Your task to perform on an android device: see tabs open on other devices in the chrome app Image 0: 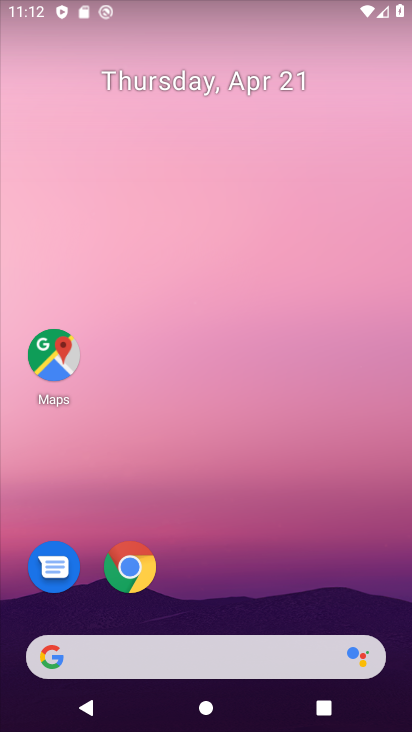
Step 0: drag from (386, 603) to (375, 166)
Your task to perform on an android device: see tabs open on other devices in the chrome app Image 1: 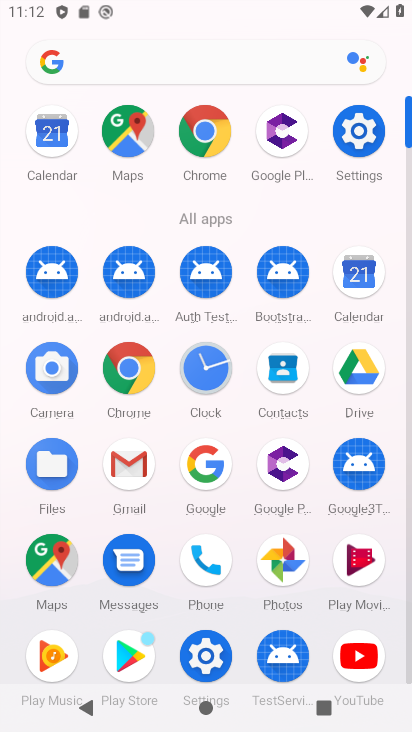
Step 1: click (141, 382)
Your task to perform on an android device: see tabs open on other devices in the chrome app Image 2: 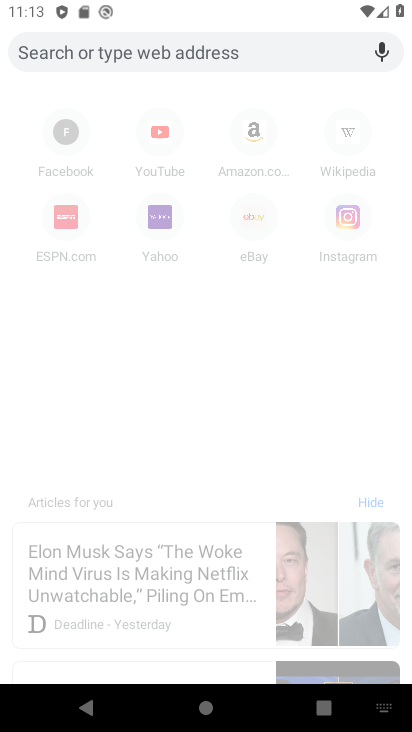
Step 2: click (148, 411)
Your task to perform on an android device: see tabs open on other devices in the chrome app Image 3: 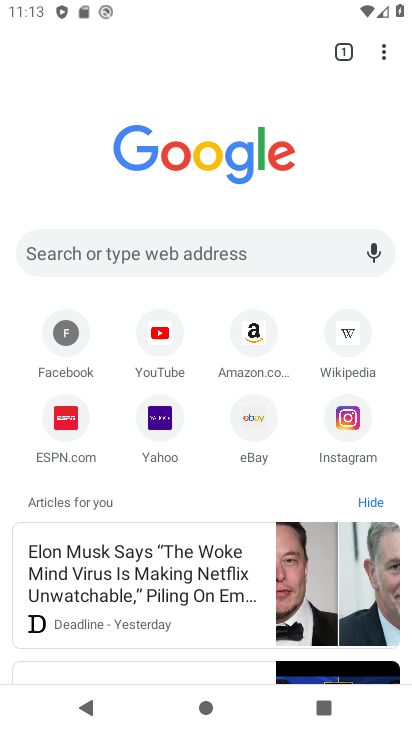
Step 3: click (344, 59)
Your task to perform on an android device: see tabs open on other devices in the chrome app Image 4: 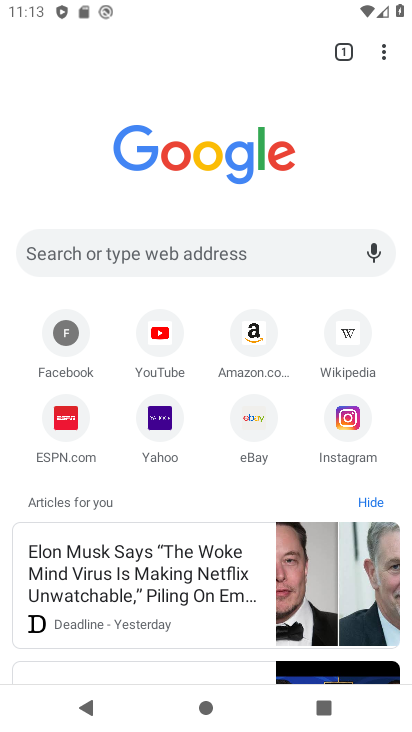
Step 4: task complete